Your task to perform on an android device: How much does a 3 bedroom apartment rent for in Miami? Image 0: 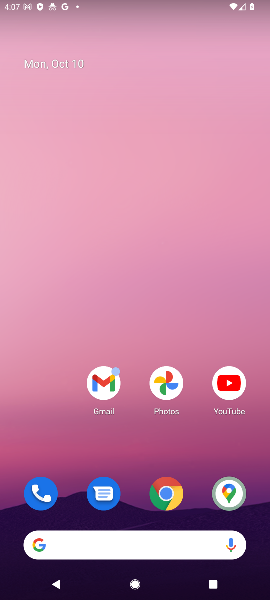
Step 0: click (136, 549)
Your task to perform on an android device: How much does a 3 bedroom apartment rent for in Miami? Image 1: 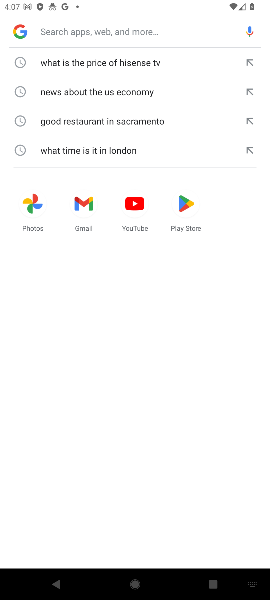
Step 1: type "3 bedroom apartment rent for in Miami"
Your task to perform on an android device: How much does a 3 bedroom apartment rent for in Miami? Image 2: 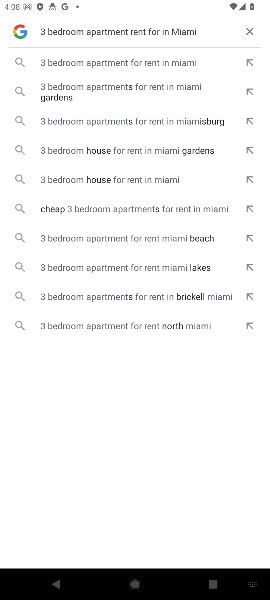
Step 2: click (174, 70)
Your task to perform on an android device: How much does a 3 bedroom apartment rent for in Miami? Image 3: 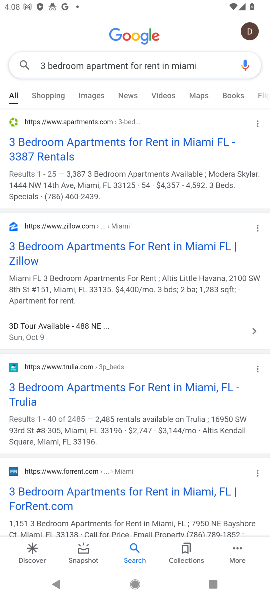
Step 3: task complete